Your task to perform on an android device: turn pop-ups off in chrome Image 0: 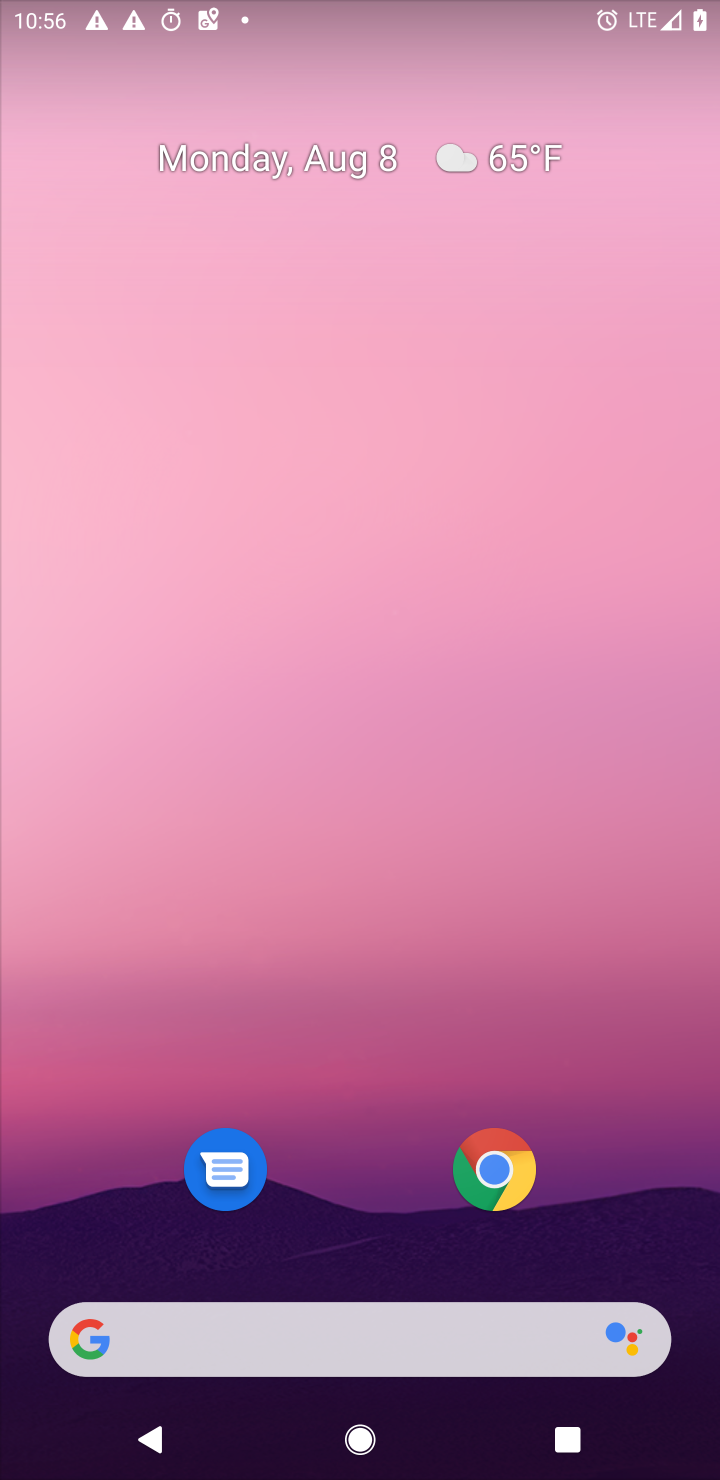
Step 0: click (490, 1160)
Your task to perform on an android device: turn pop-ups off in chrome Image 1: 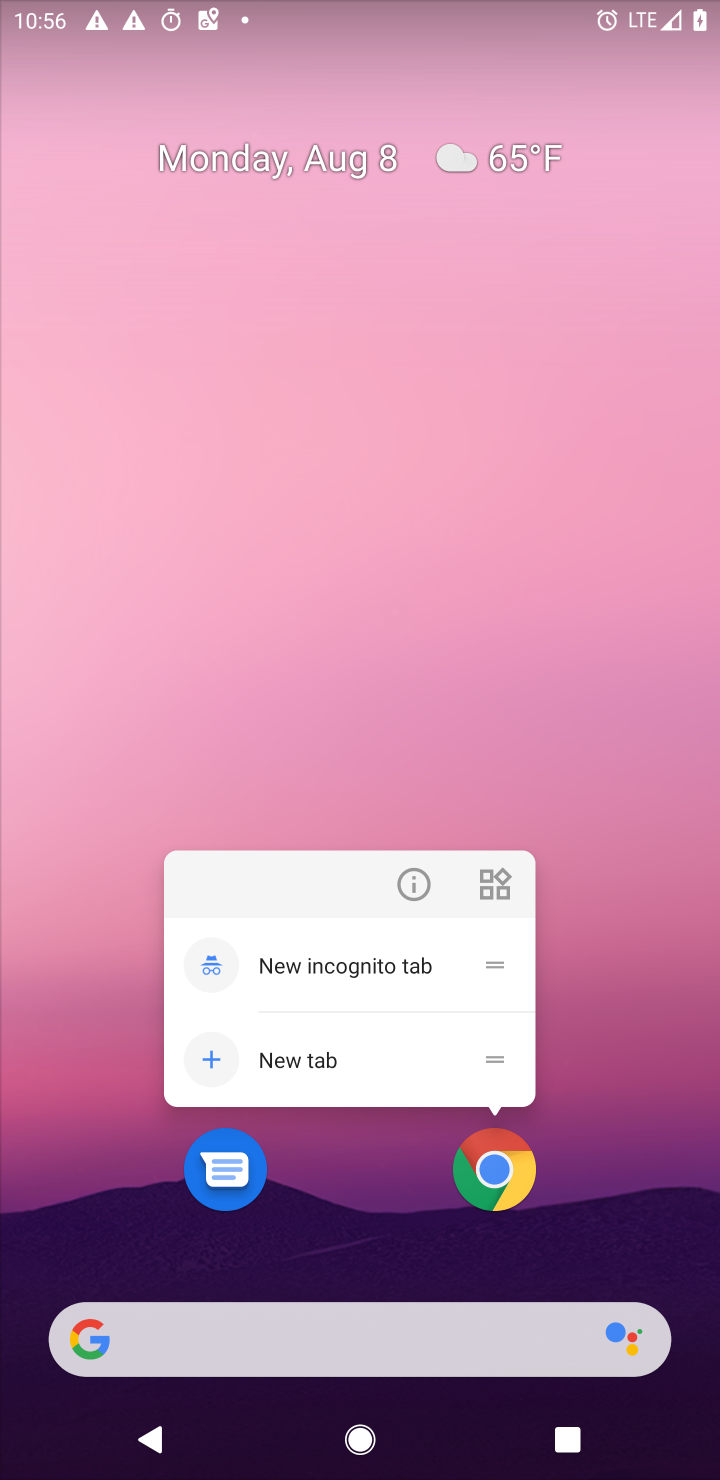
Step 1: click (487, 1158)
Your task to perform on an android device: turn pop-ups off in chrome Image 2: 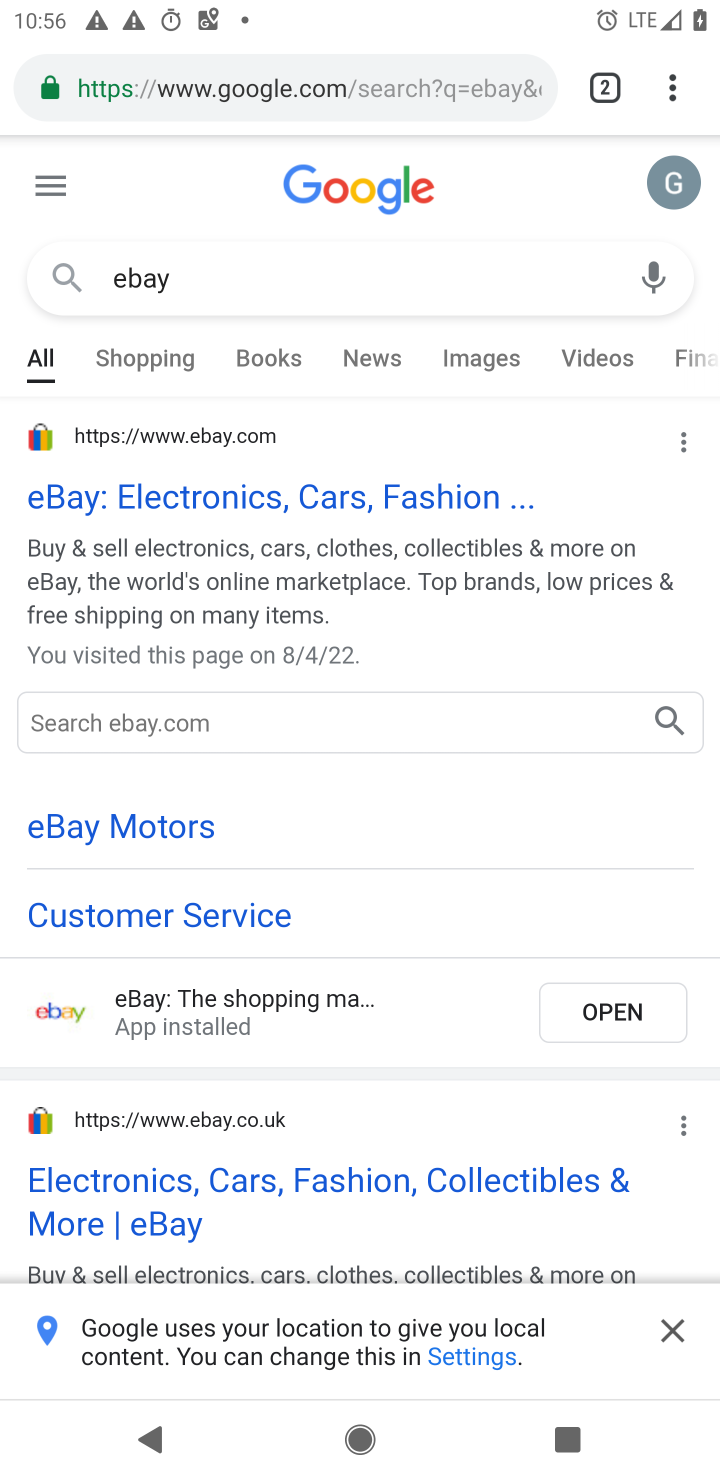
Step 2: drag from (682, 90) to (337, 987)
Your task to perform on an android device: turn pop-ups off in chrome Image 3: 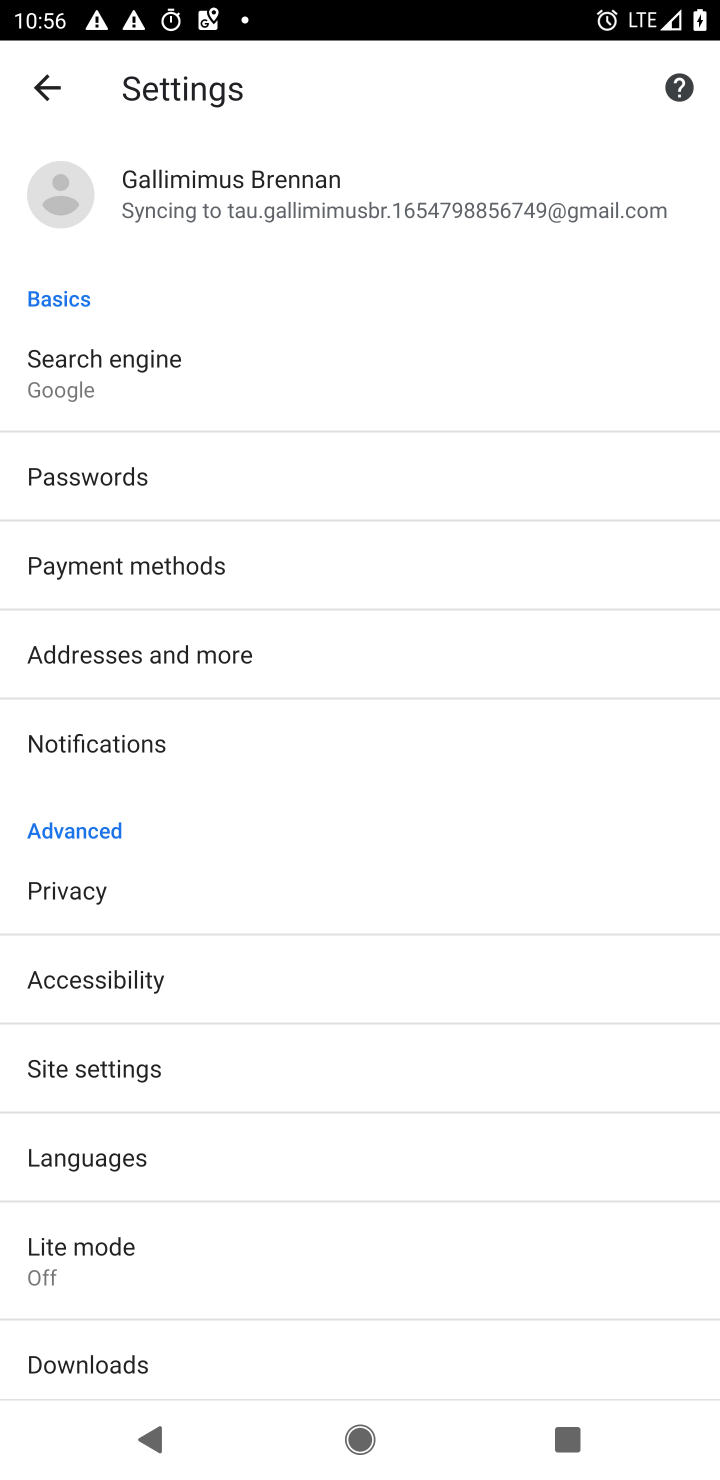
Step 3: click (187, 1066)
Your task to perform on an android device: turn pop-ups off in chrome Image 4: 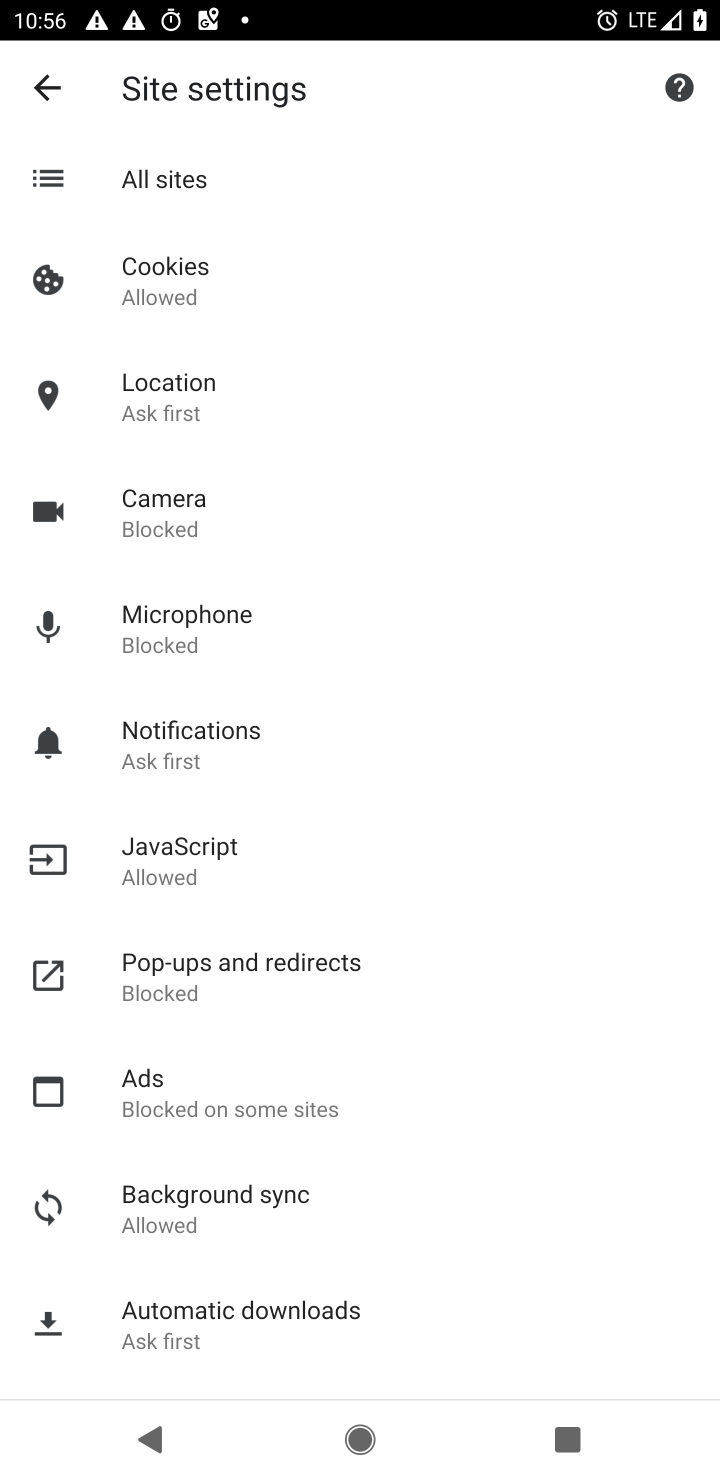
Step 4: click (193, 952)
Your task to perform on an android device: turn pop-ups off in chrome Image 5: 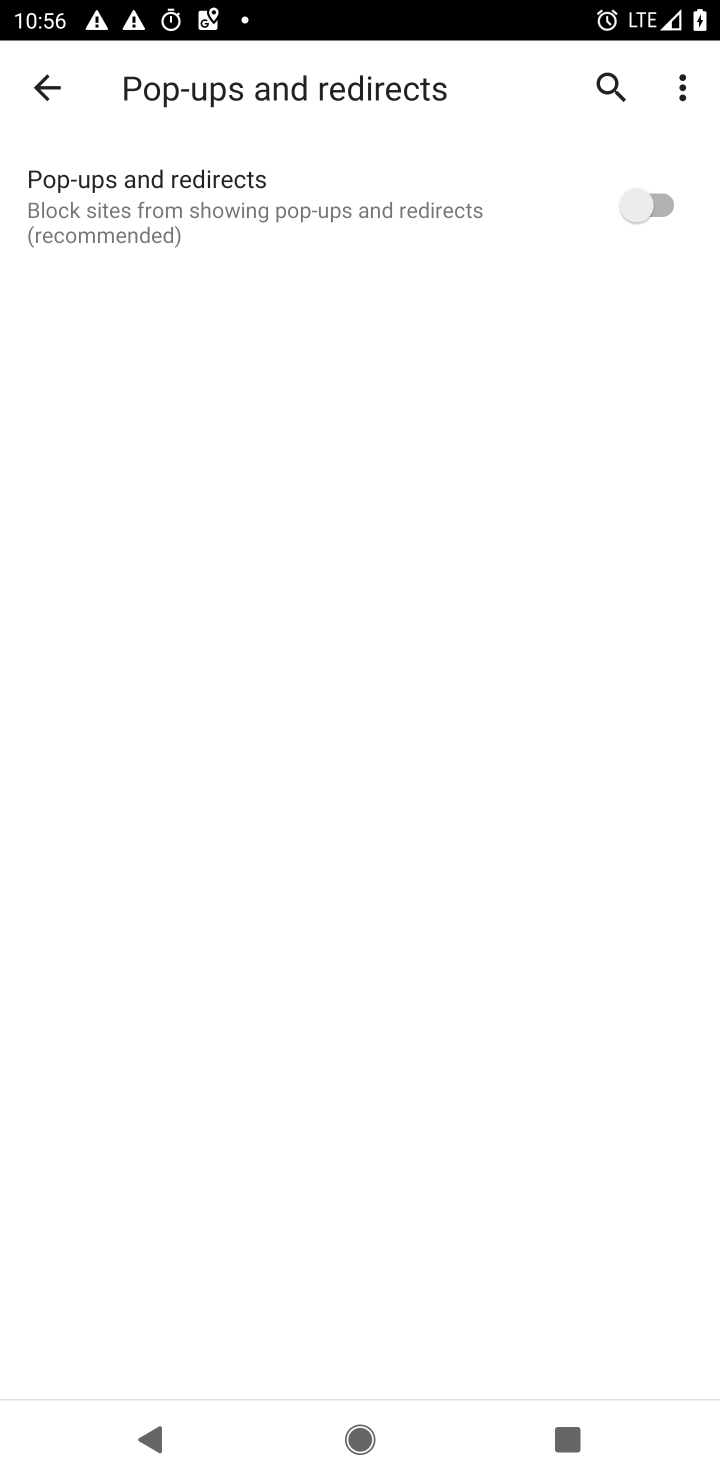
Step 5: task complete